Your task to perform on an android device: Is it going to rain tomorrow? Image 0: 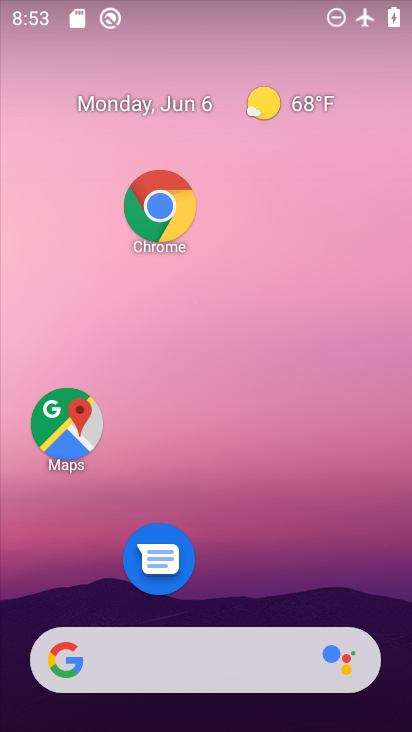
Step 0: drag from (22, 228) to (412, 547)
Your task to perform on an android device: Is it going to rain tomorrow? Image 1: 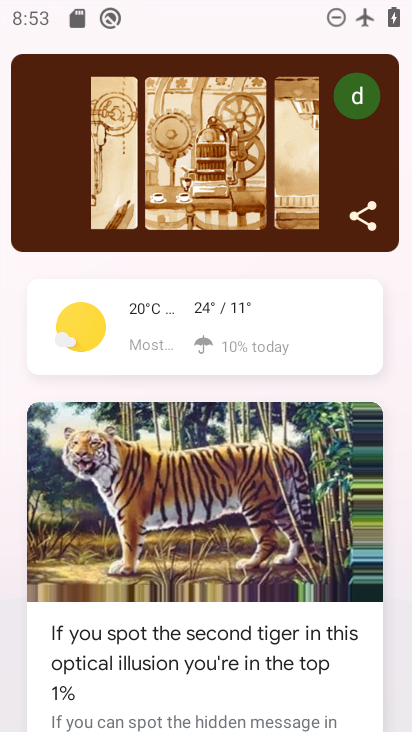
Step 1: click (394, 446)
Your task to perform on an android device: Is it going to rain tomorrow? Image 2: 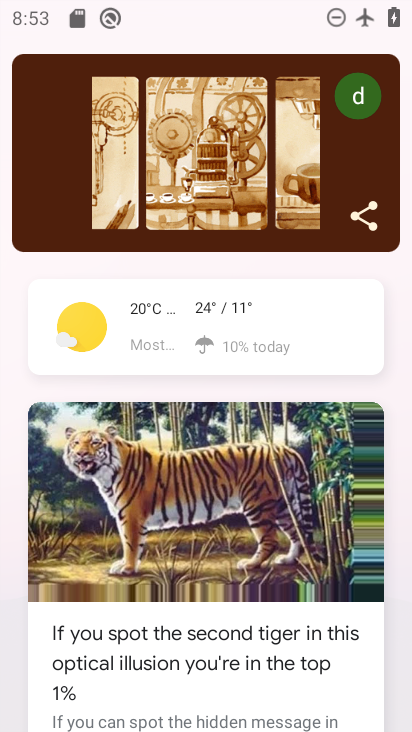
Step 2: click (159, 334)
Your task to perform on an android device: Is it going to rain tomorrow? Image 3: 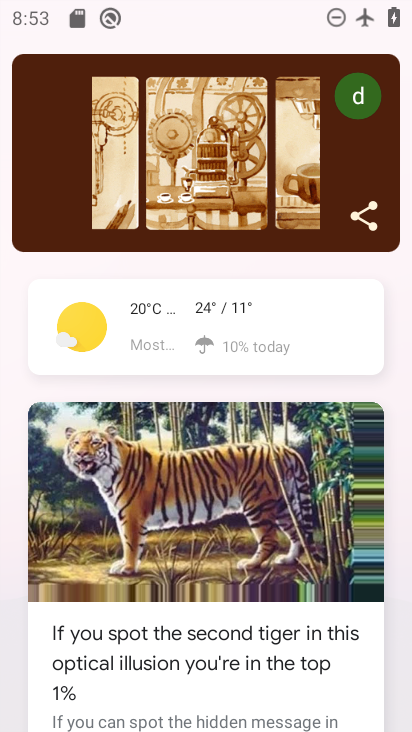
Step 3: click (173, 330)
Your task to perform on an android device: Is it going to rain tomorrow? Image 4: 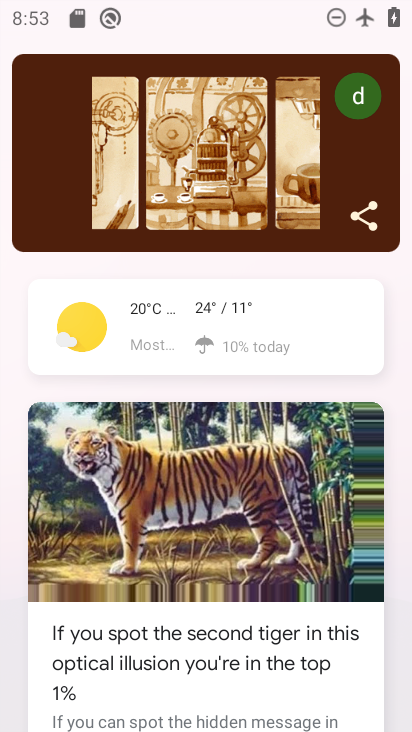
Step 4: click (173, 330)
Your task to perform on an android device: Is it going to rain tomorrow? Image 5: 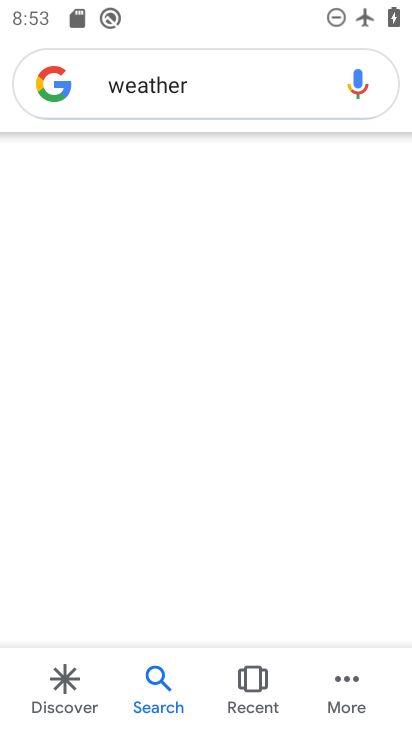
Step 5: click (174, 328)
Your task to perform on an android device: Is it going to rain tomorrow? Image 6: 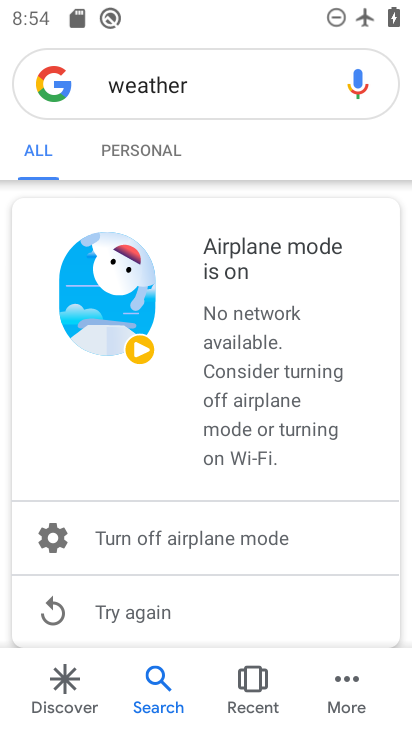
Step 6: task complete